Your task to perform on an android device: Open Maps and search for coffee Image 0: 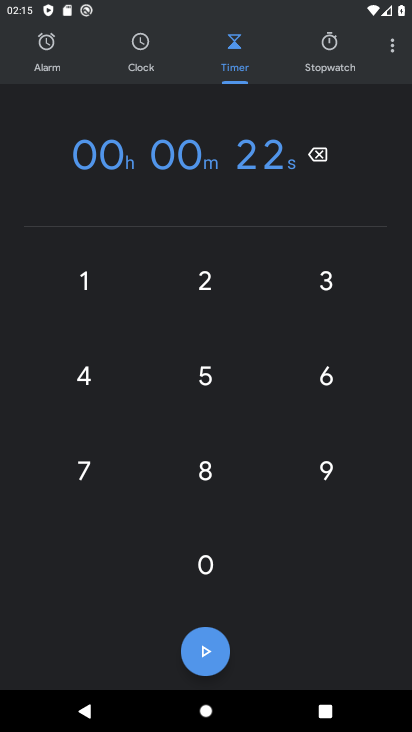
Step 0: press home button
Your task to perform on an android device: Open Maps and search for coffee Image 1: 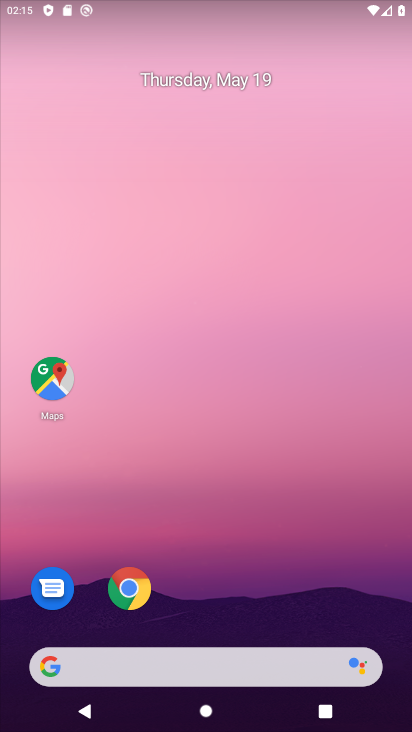
Step 1: click (52, 376)
Your task to perform on an android device: Open Maps and search for coffee Image 2: 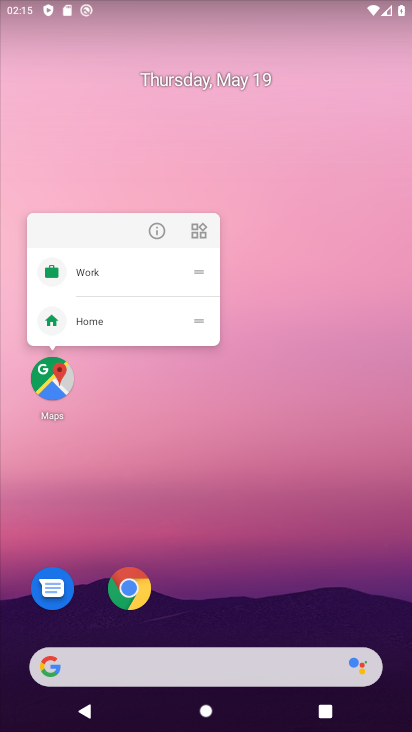
Step 2: click (59, 363)
Your task to perform on an android device: Open Maps and search for coffee Image 3: 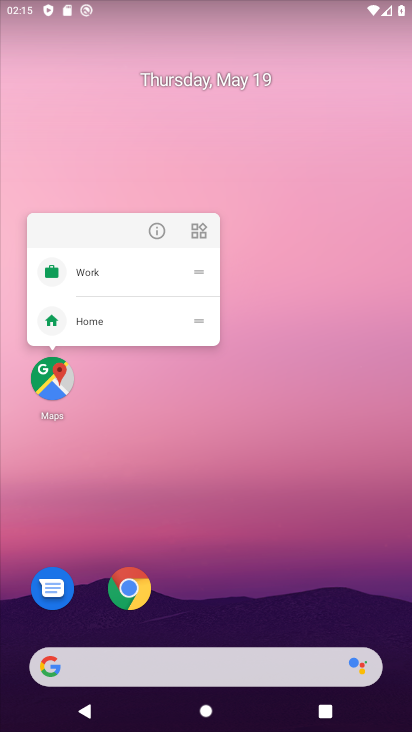
Step 3: click (54, 378)
Your task to perform on an android device: Open Maps and search for coffee Image 4: 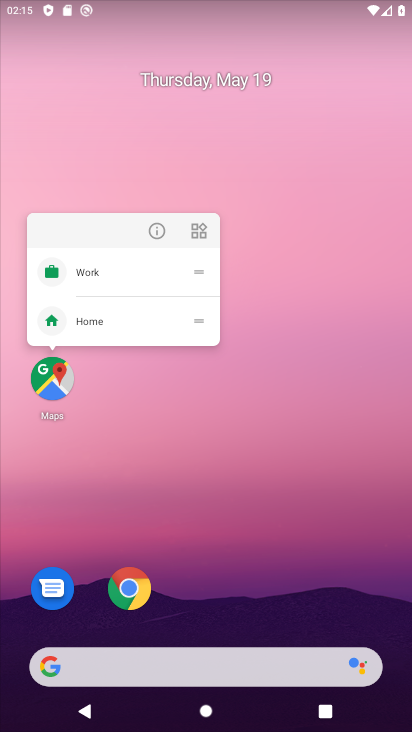
Step 4: click (54, 378)
Your task to perform on an android device: Open Maps and search for coffee Image 5: 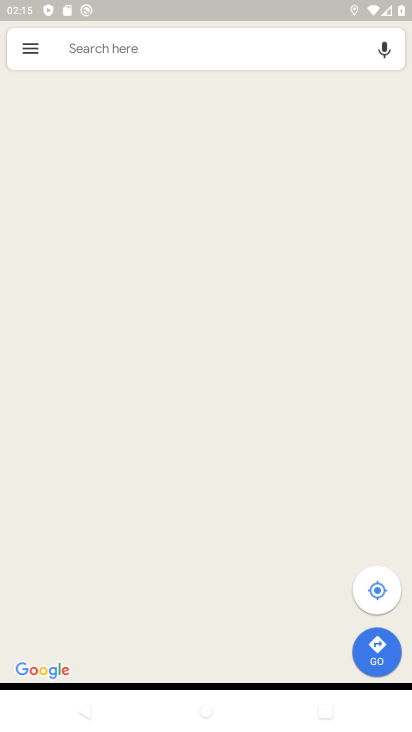
Step 5: click (195, 59)
Your task to perform on an android device: Open Maps and search for coffee Image 6: 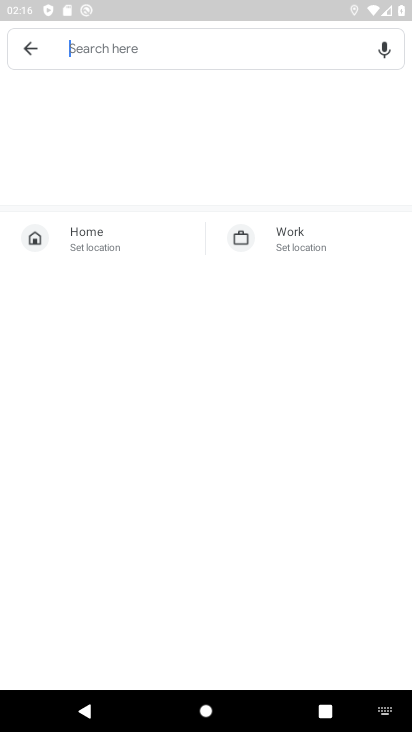
Step 6: click (96, 166)
Your task to perform on an android device: Open Maps and search for coffee Image 7: 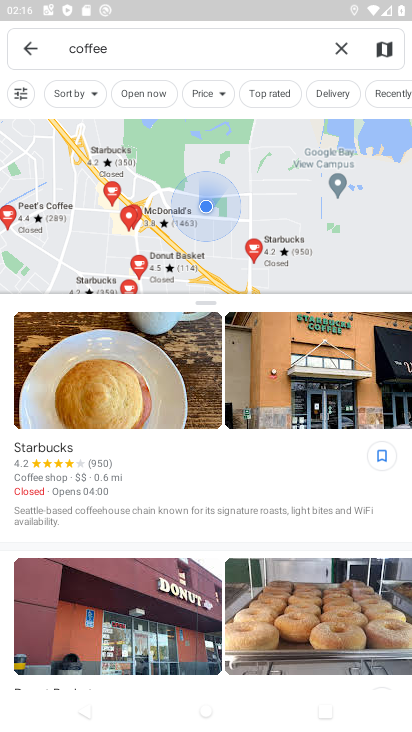
Step 7: task complete